Your task to perform on an android device: Go to wifi settings Image 0: 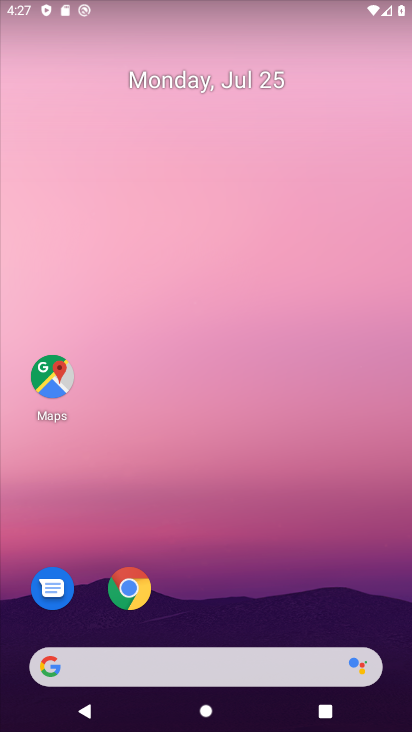
Step 0: drag from (196, 127) to (283, 225)
Your task to perform on an android device: Go to wifi settings Image 1: 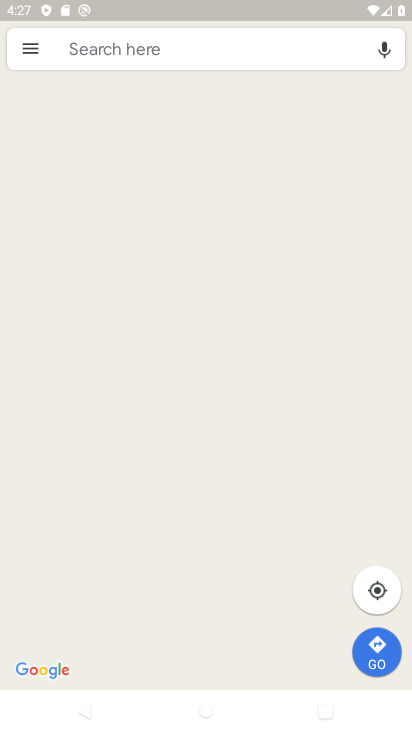
Step 1: drag from (260, 536) to (203, 87)
Your task to perform on an android device: Go to wifi settings Image 2: 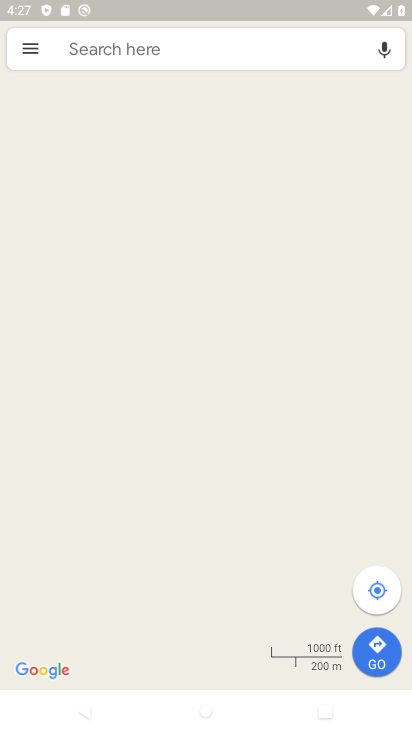
Step 2: press back button
Your task to perform on an android device: Go to wifi settings Image 3: 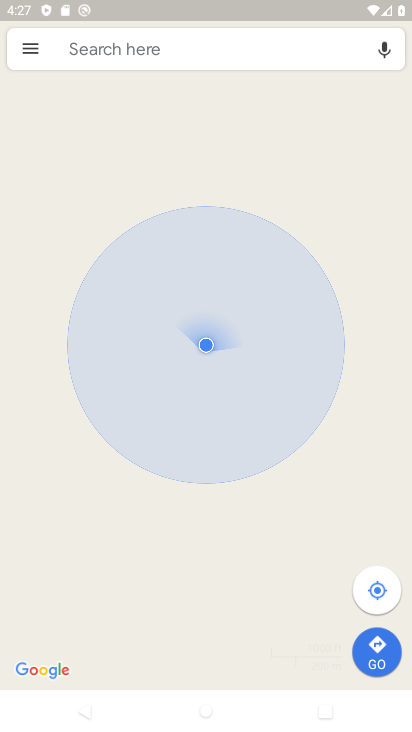
Step 3: press back button
Your task to perform on an android device: Go to wifi settings Image 4: 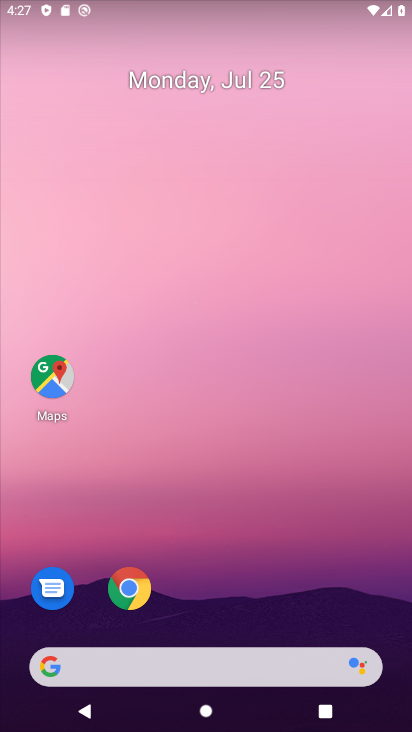
Step 4: press home button
Your task to perform on an android device: Go to wifi settings Image 5: 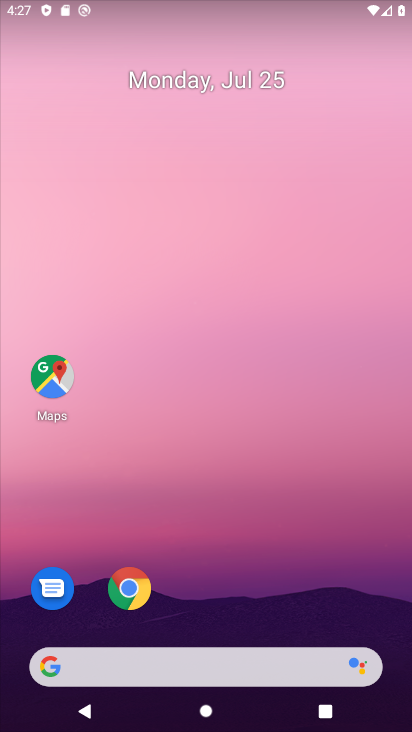
Step 5: press home button
Your task to perform on an android device: Go to wifi settings Image 6: 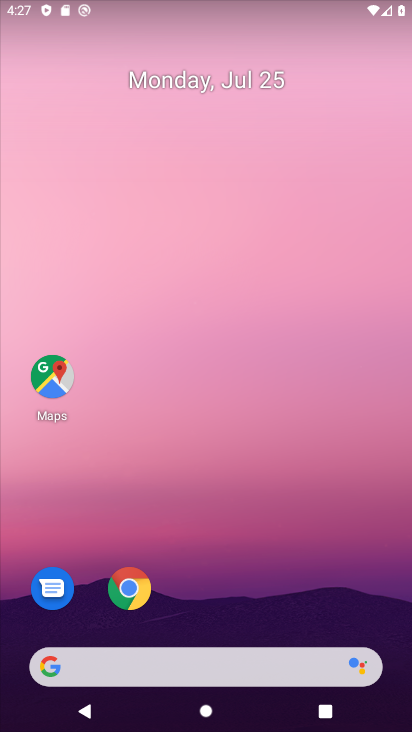
Step 6: drag from (273, 461) to (203, 89)
Your task to perform on an android device: Go to wifi settings Image 7: 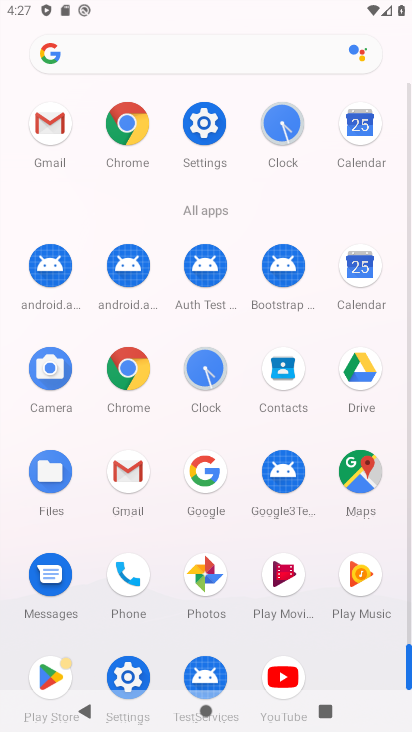
Step 7: drag from (249, 551) to (180, 194)
Your task to perform on an android device: Go to wifi settings Image 8: 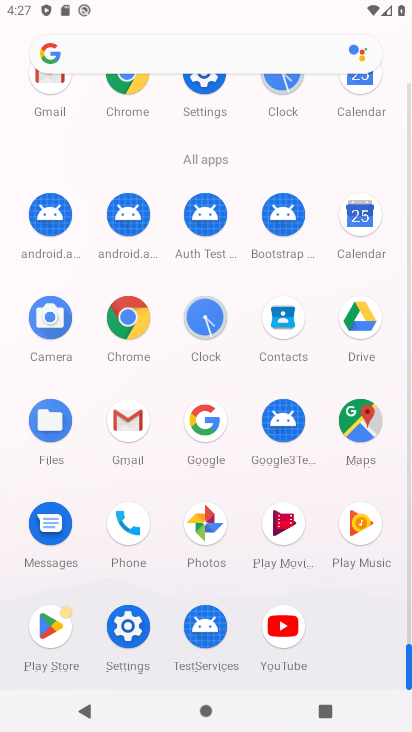
Step 8: click (207, 96)
Your task to perform on an android device: Go to wifi settings Image 9: 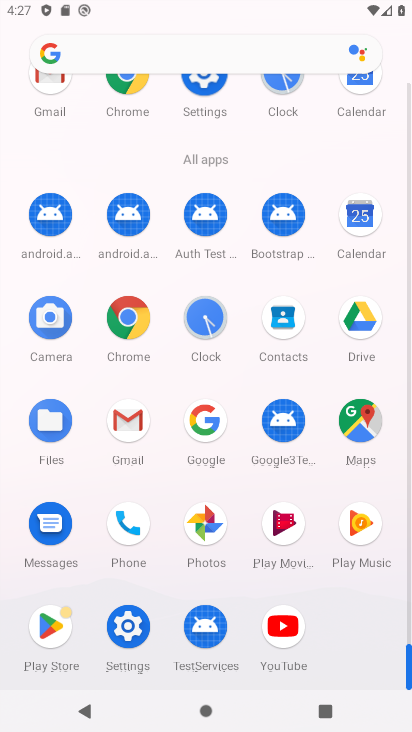
Step 9: click (205, 96)
Your task to perform on an android device: Go to wifi settings Image 10: 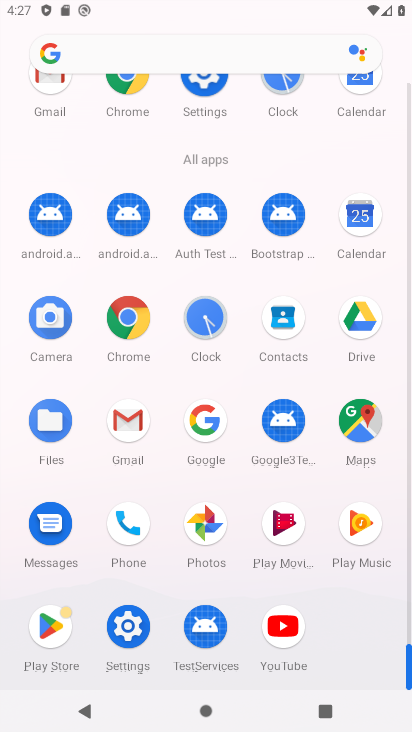
Step 10: click (203, 97)
Your task to perform on an android device: Go to wifi settings Image 11: 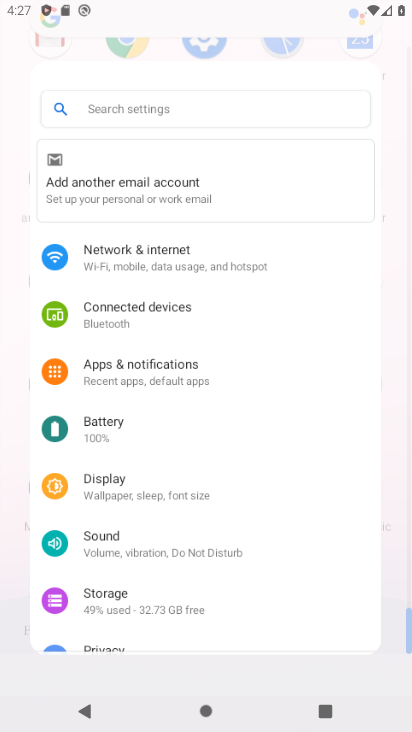
Step 11: click (203, 97)
Your task to perform on an android device: Go to wifi settings Image 12: 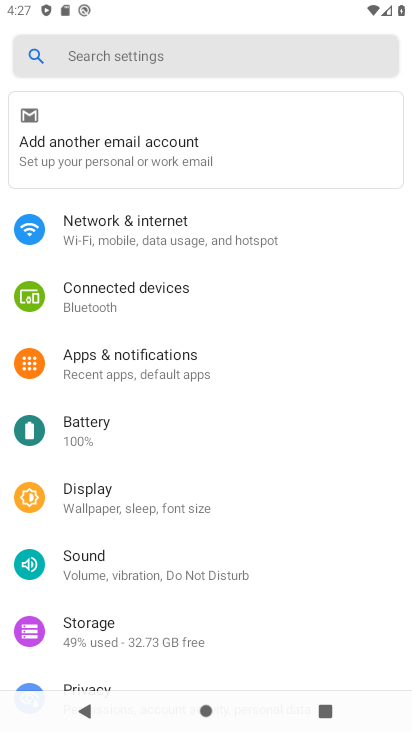
Step 12: click (203, 97)
Your task to perform on an android device: Go to wifi settings Image 13: 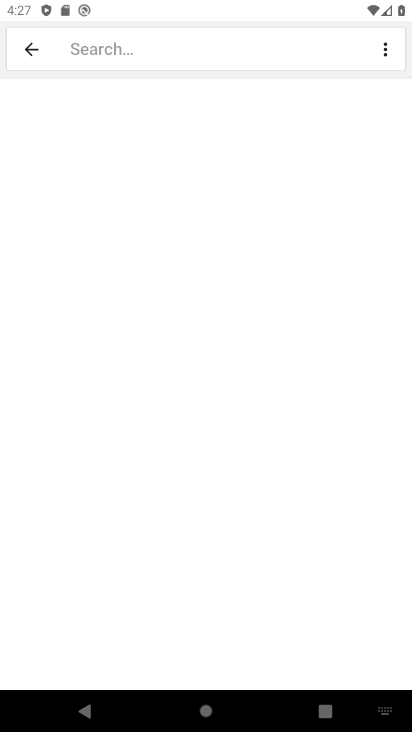
Step 13: click (38, 43)
Your task to perform on an android device: Go to wifi settings Image 14: 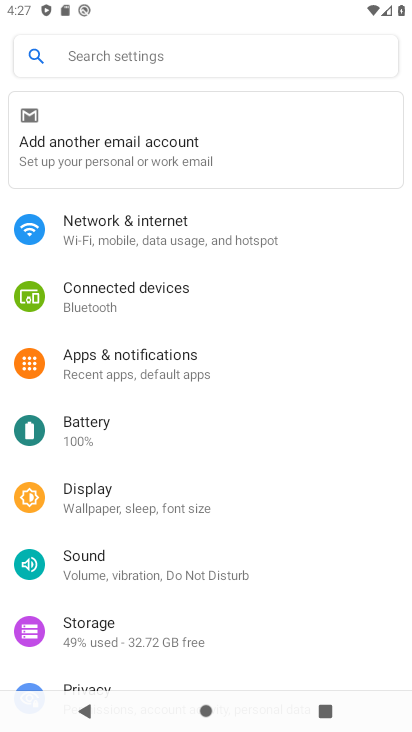
Step 14: click (132, 241)
Your task to perform on an android device: Go to wifi settings Image 15: 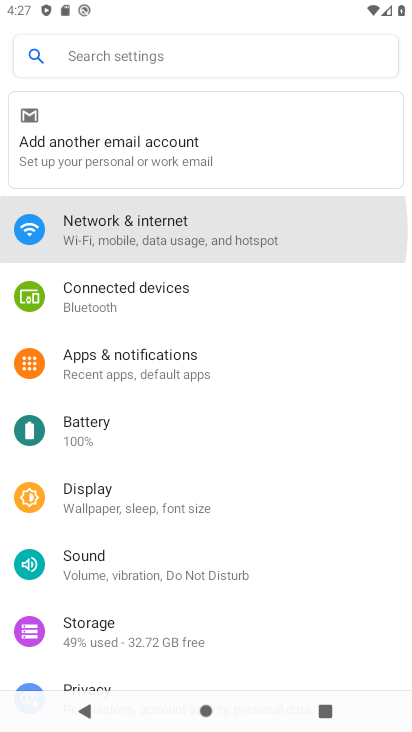
Step 15: click (131, 241)
Your task to perform on an android device: Go to wifi settings Image 16: 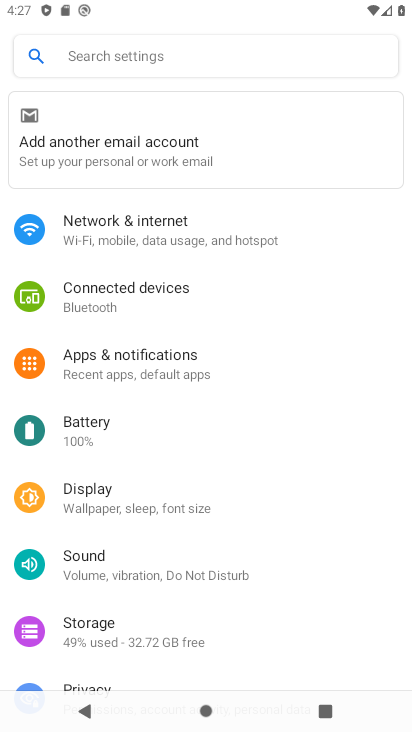
Step 16: click (135, 237)
Your task to perform on an android device: Go to wifi settings Image 17: 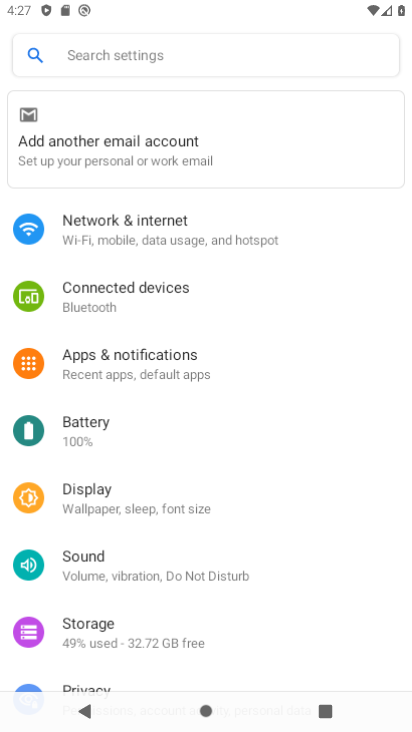
Step 17: click (135, 236)
Your task to perform on an android device: Go to wifi settings Image 18: 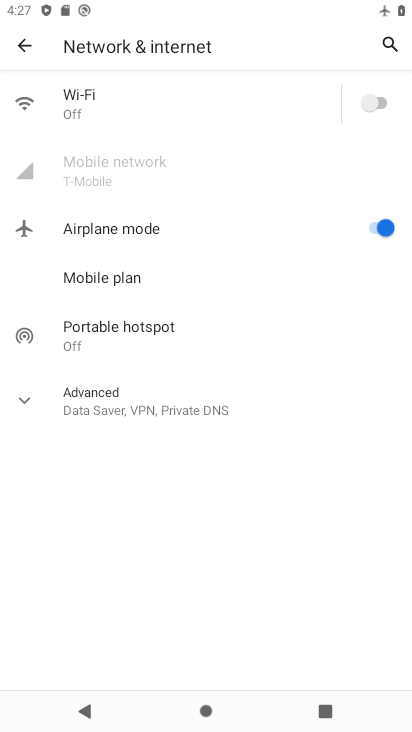
Step 18: click (370, 90)
Your task to perform on an android device: Go to wifi settings Image 19: 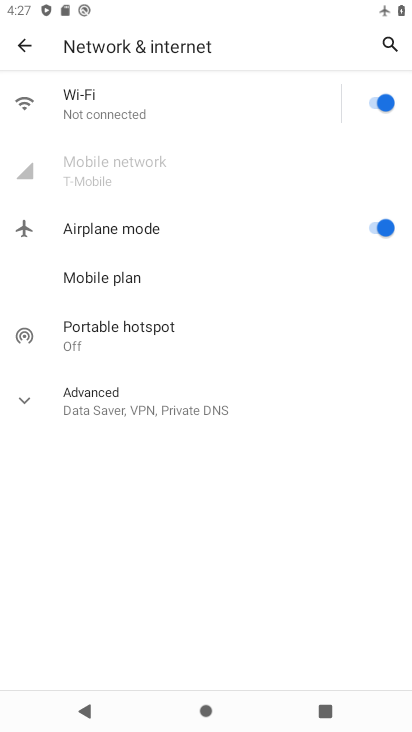
Step 19: click (384, 246)
Your task to perform on an android device: Go to wifi settings Image 20: 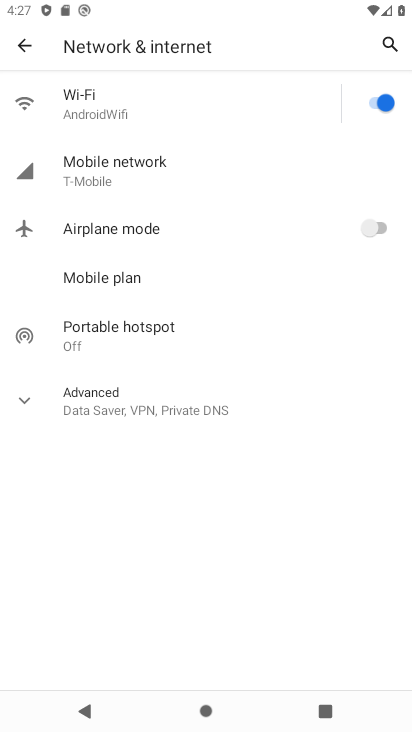
Step 20: task complete